Your task to perform on an android device: toggle priority inbox in the gmail app Image 0: 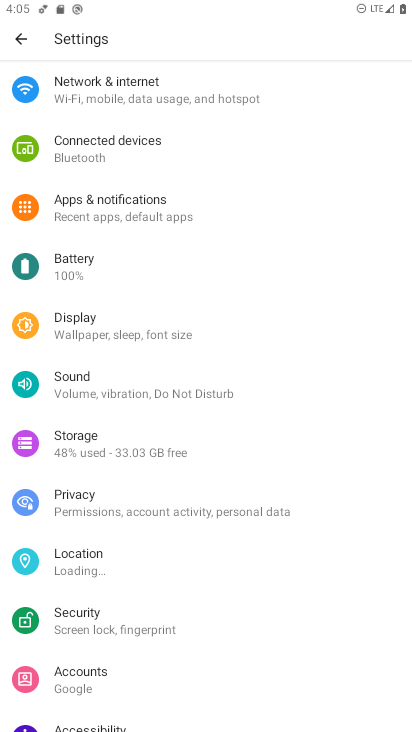
Step 0: press home button
Your task to perform on an android device: toggle priority inbox in the gmail app Image 1: 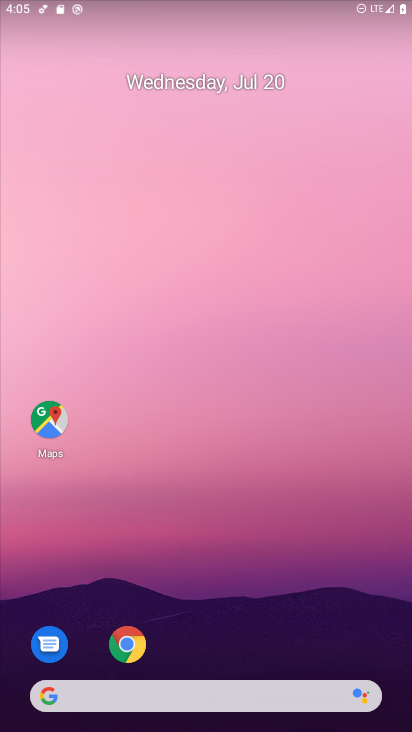
Step 1: drag from (153, 632) to (221, 211)
Your task to perform on an android device: toggle priority inbox in the gmail app Image 2: 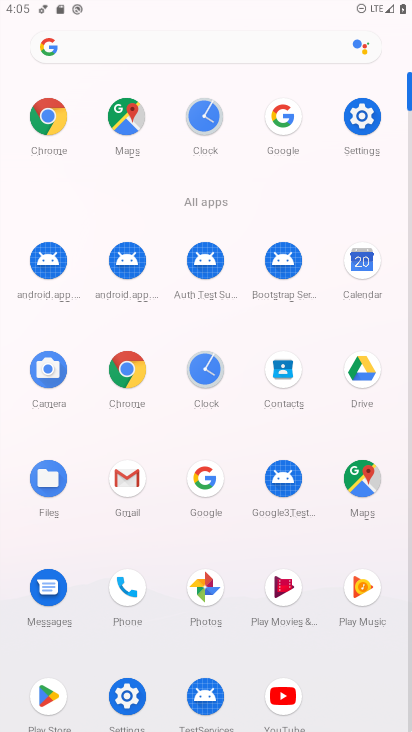
Step 2: click (137, 499)
Your task to perform on an android device: toggle priority inbox in the gmail app Image 3: 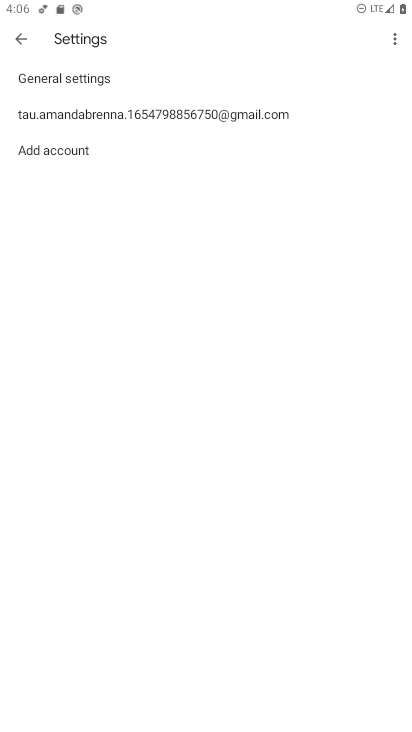
Step 3: click (71, 130)
Your task to perform on an android device: toggle priority inbox in the gmail app Image 4: 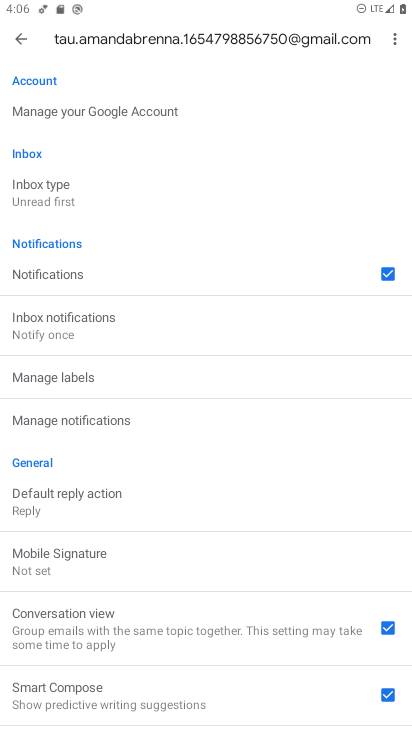
Step 4: click (58, 202)
Your task to perform on an android device: toggle priority inbox in the gmail app Image 5: 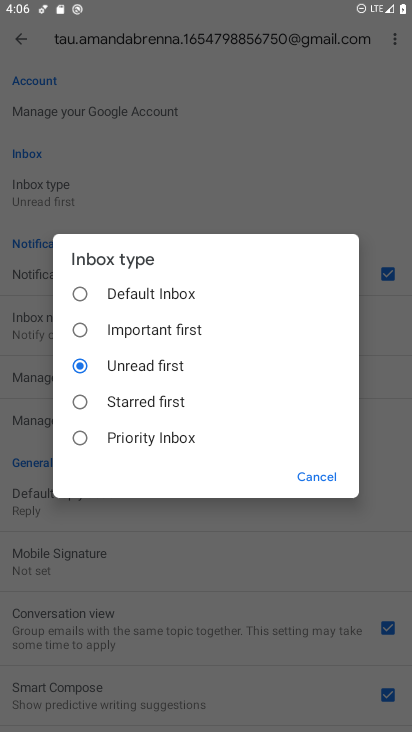
Step 5: click (142, 429)
Your task to perform on an android device: toggle priority inbox in the gmail app Image 6: 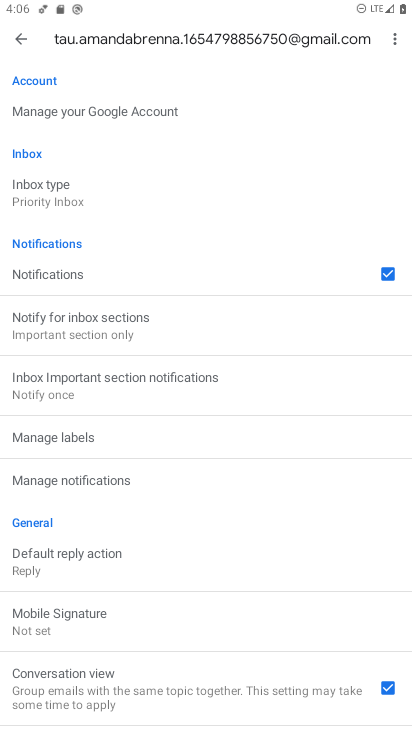
Step 6: task complete